Your task to perform on an android device: check google app version Image 0: 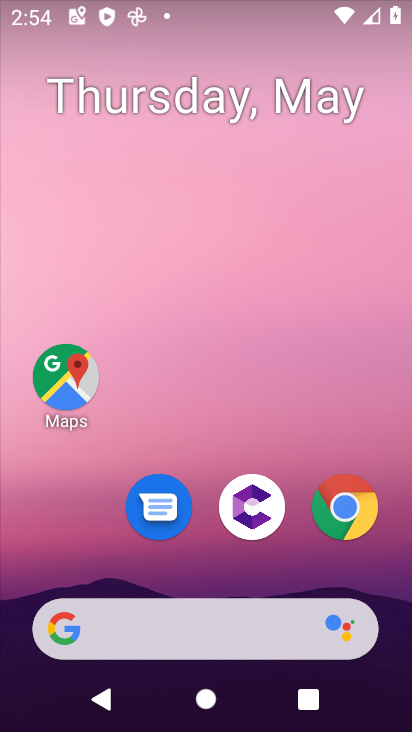
Step 0: drag from (263, 421) to (234, 5)
Your task to perform on an android device: check google app version Image 1: 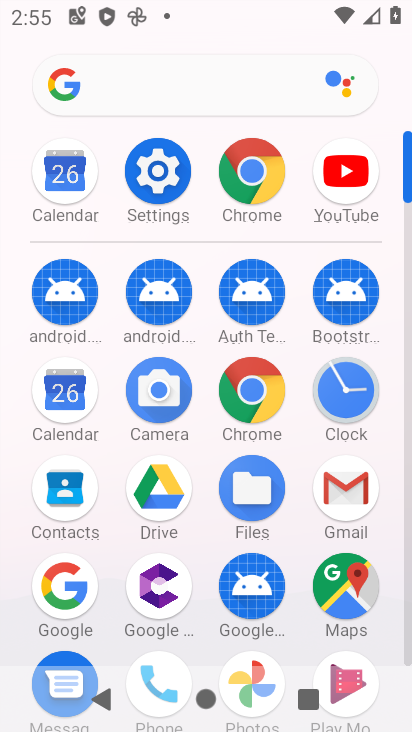
Step 1: click (69, 590)
Your task to perform on an android device: check google app version Image 2: 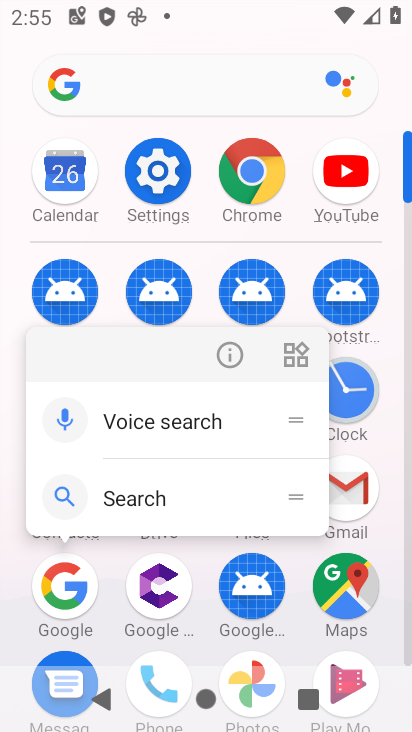
Step 2: click (229, 353)
Your task to perform on an android device: check google app version Image 3: 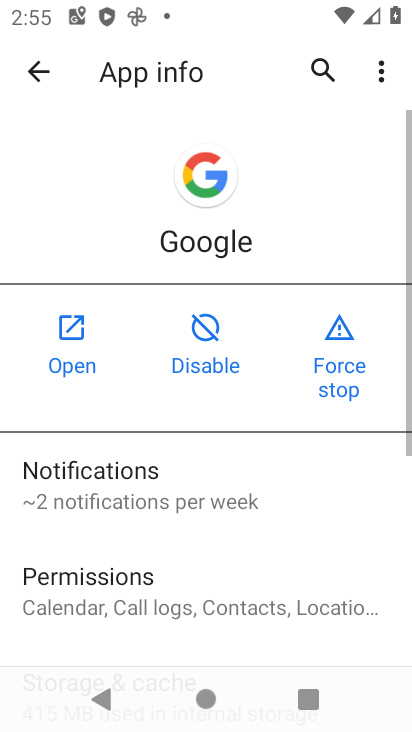
Step 3: drag from (263, 569) to (237, 100)
Your task to perform on an android device: check google app version Image 4: 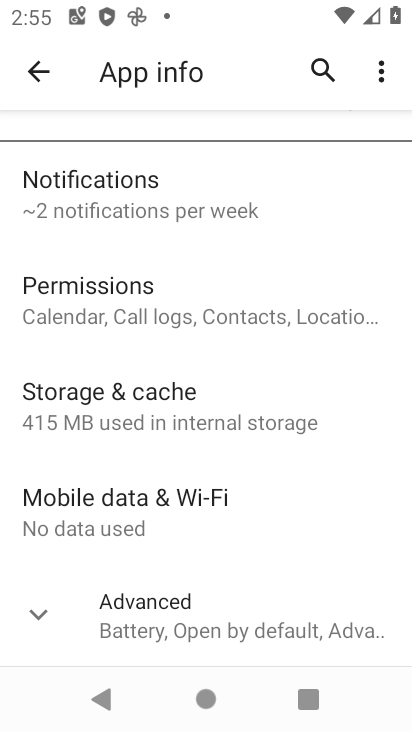
Step 4: click (46, 618)
Your task to perform on an android device: check google app version Image 5: 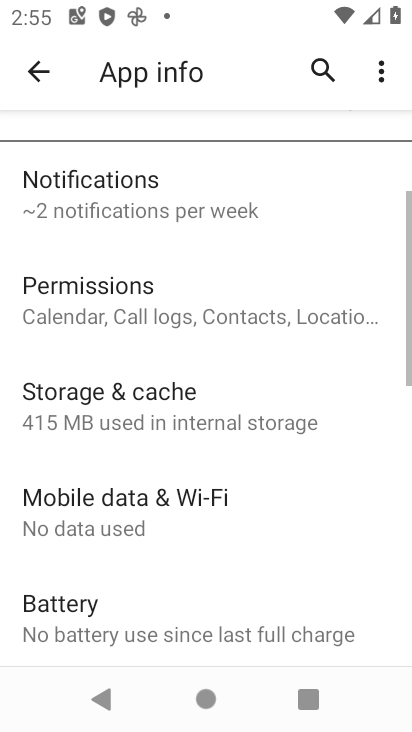
Step 5: task complete